Your task to perform on an android device: Open network settings Image 0: 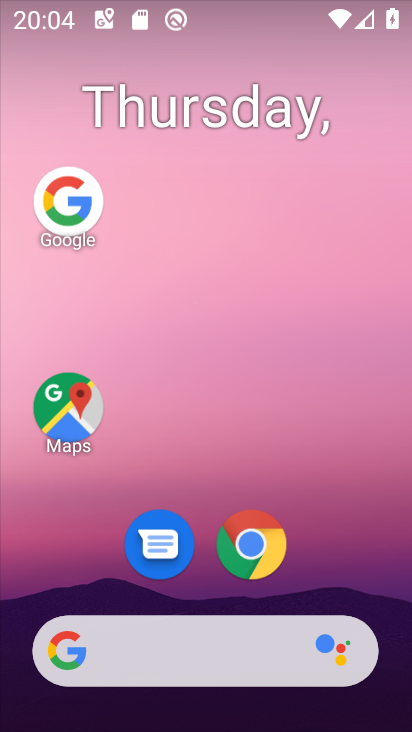
Step 0: drag from (199, 697) to (221, 91)
Your task to perform on an android device: Open network settings Image 1: 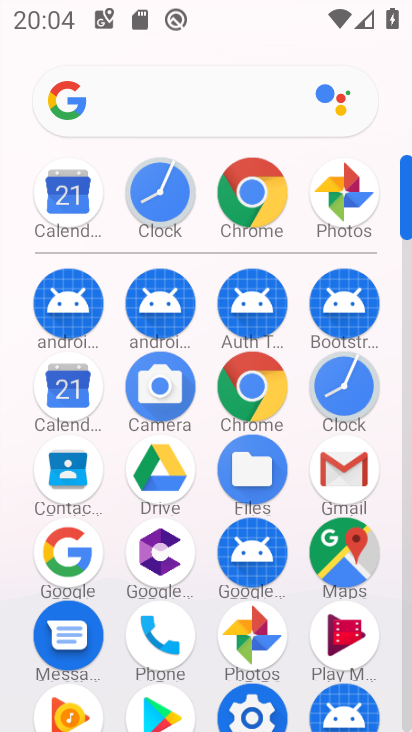
Step 1: click (248, 698)
Your task to perform on an android device: Open network settings Image 2: 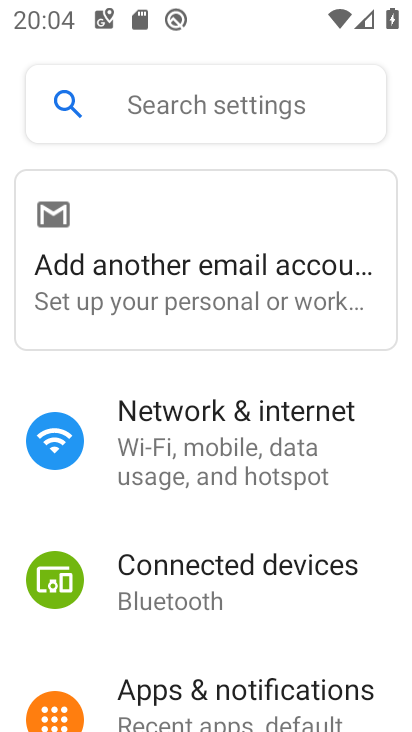
Step 2: click (216, 118)
Your task to perform on an android device: Open network settings Image 3: 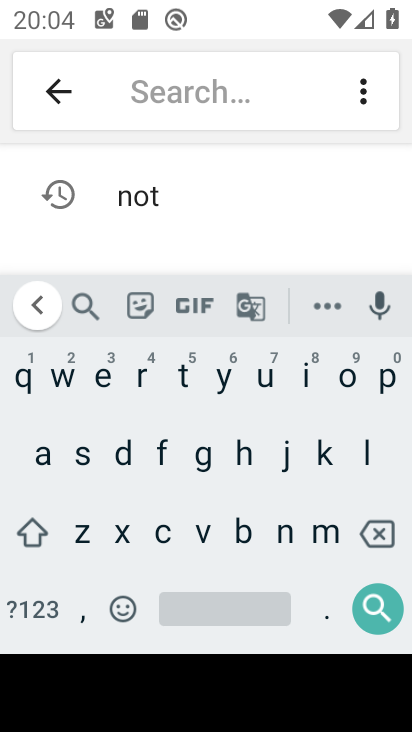
Step 3: click (42, 91)
Your task to perform on an android device: Open network settings Image 4: 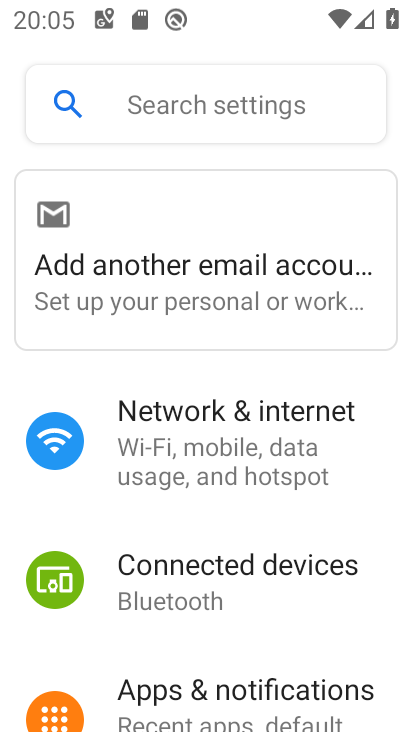
Step 4: click (154, 407)
Your task to perform on an android device: Open network settings Image 5: 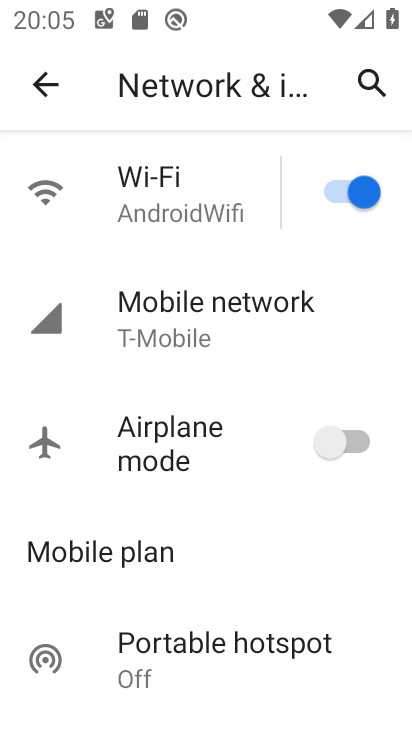
Step 5: task complete